Your task to perform on an android device: see sites visited before in the chrome app Image 0: 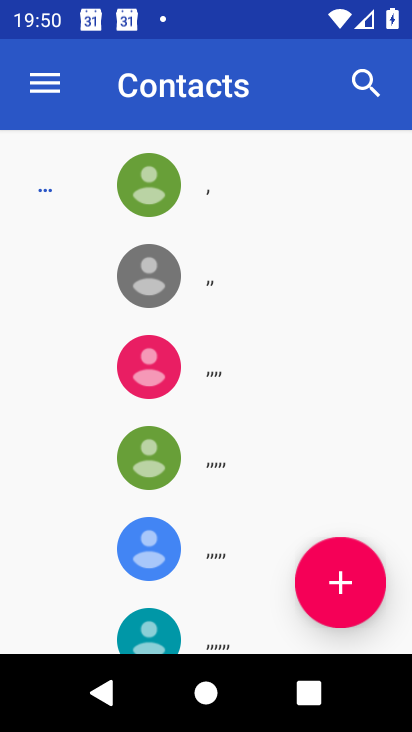
Step 0: press home button
Your task to perform on an android device: see sites visited before in the chrome app Image 1: 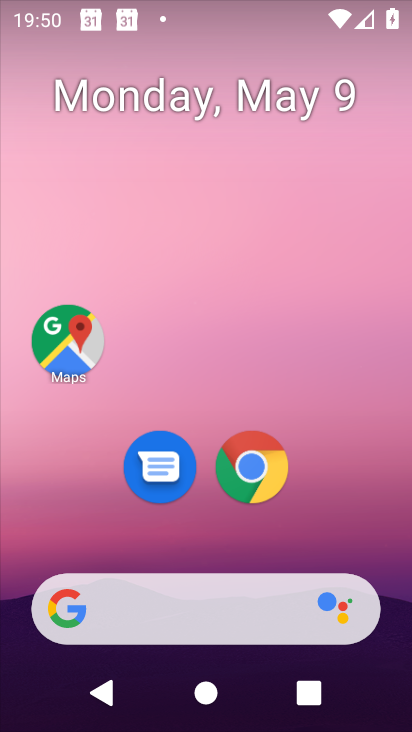
Step 1: click (261, 473)
Your task to perform on an android device: see sites visited before in the chrome app Image 2: 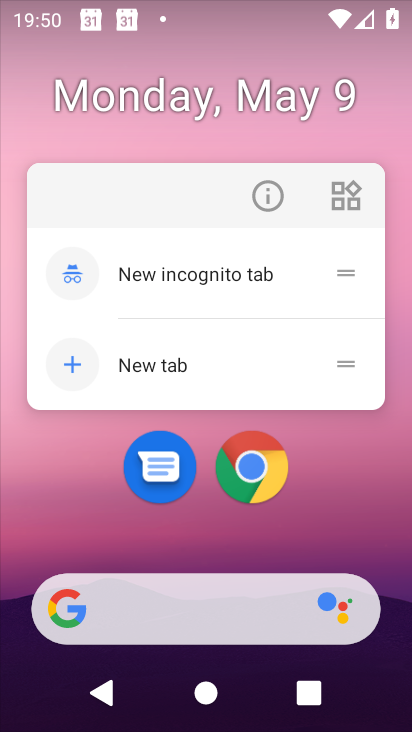
Step 2: click (255, 467)
Your task to perform on an android device: see sites visited before in the chrome app Image 3: 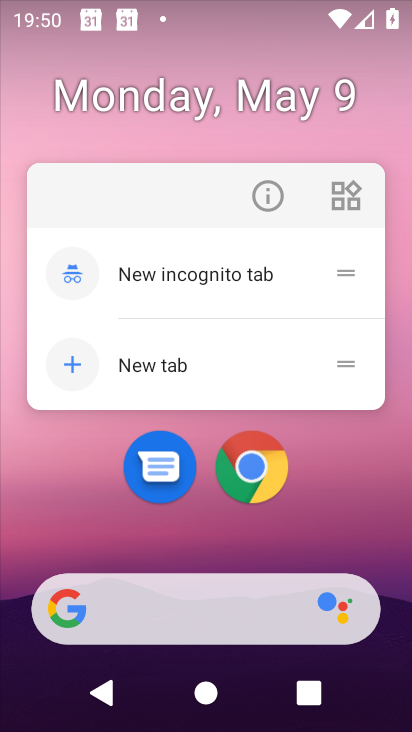
Step 3: click (257, 462)
Your task to perform on an android device: see sites visited before in the chrome app Image 4: 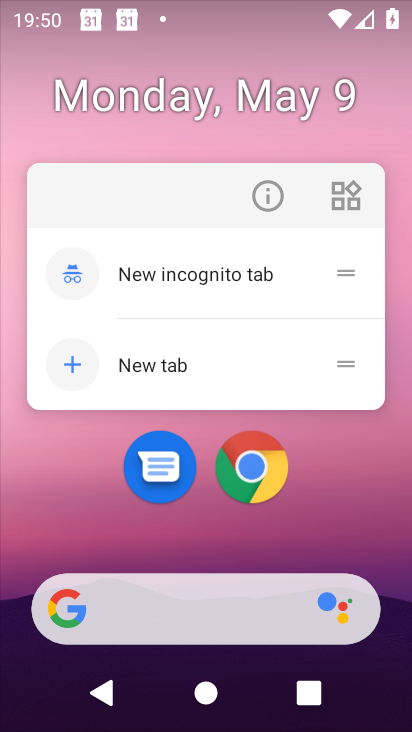
Step 4: click (253, 473)
Your task to perform on an android device: see sites visited before in the chrome app Image 5: 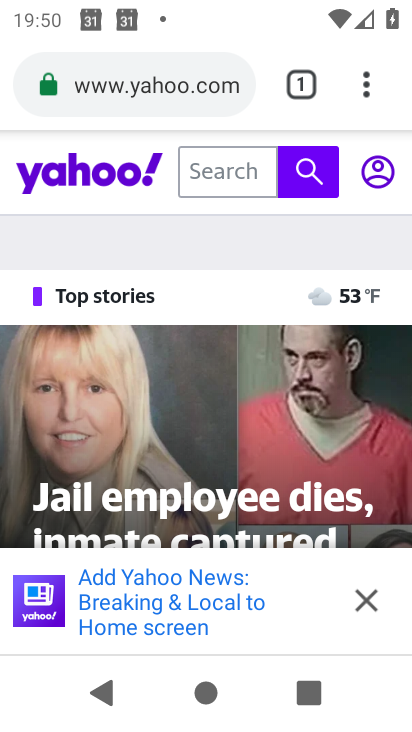
Step 5: task complete